Your task to perform on an android device: Open Youtube and go to the subscriptions tab Image 0: 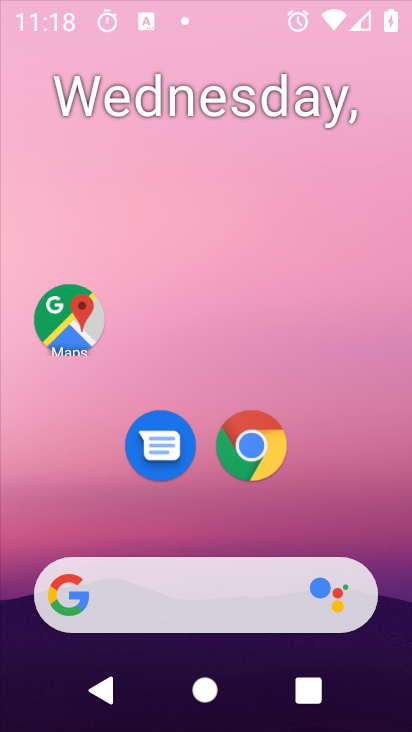
Step 0: click (383, 22)
Your task to perform on an android device: Open Youtube and go to the subscriptions tab Image 1: 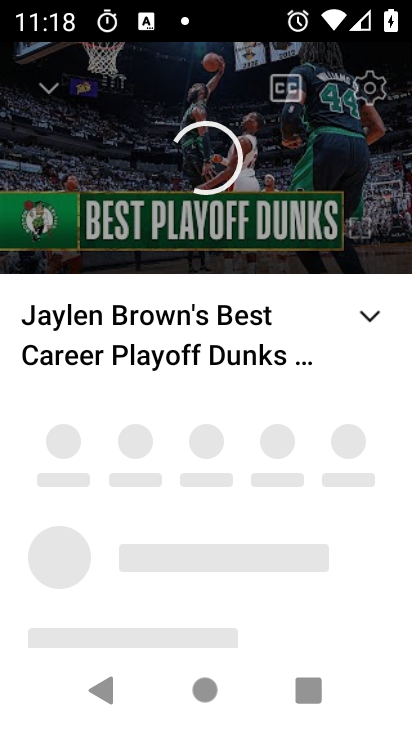
Step 1: press home button
Your task to perform on an android device: Open Youtube and go to the subscriptions tab Image 2: 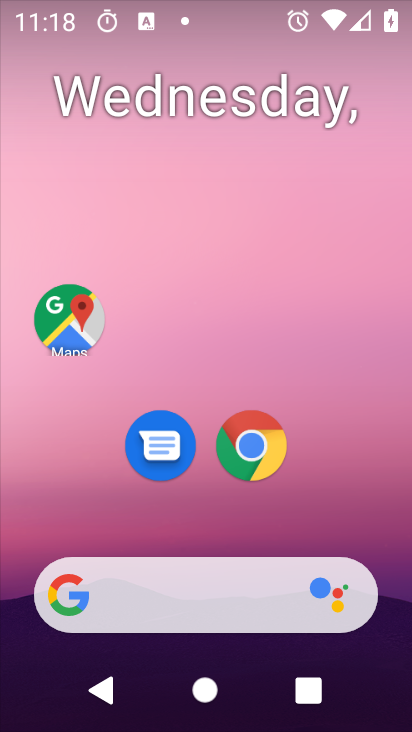
Step 2: drag from (384, 520) to (403, 45)
Your task to perform on an android device: Open Youtube and go to the subscriptions tab Image 3: 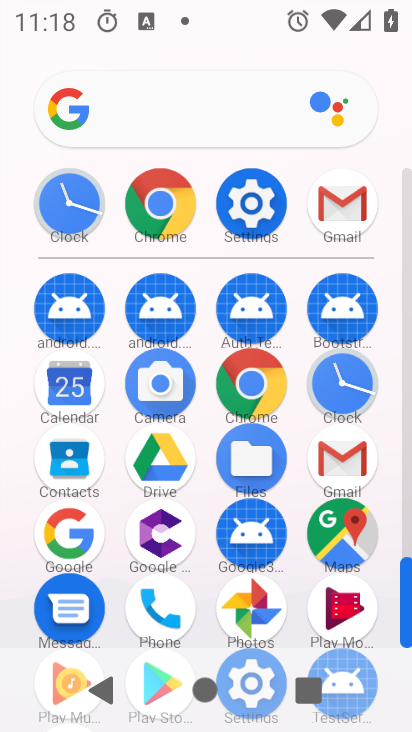
Step 3: click (161, 217)
Your task to perform on an android device: Open Youtube and go to the subscriptions tab Image 4: 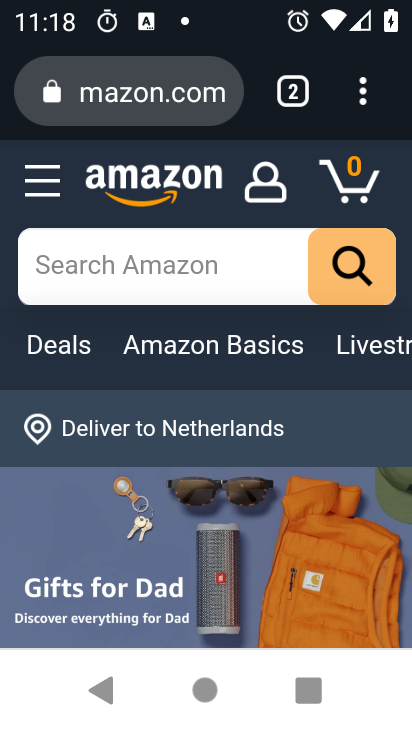
Step 4: press home button
Your task to perform on an android device: Open Youtube and go to the subscriptions tab Image 5: 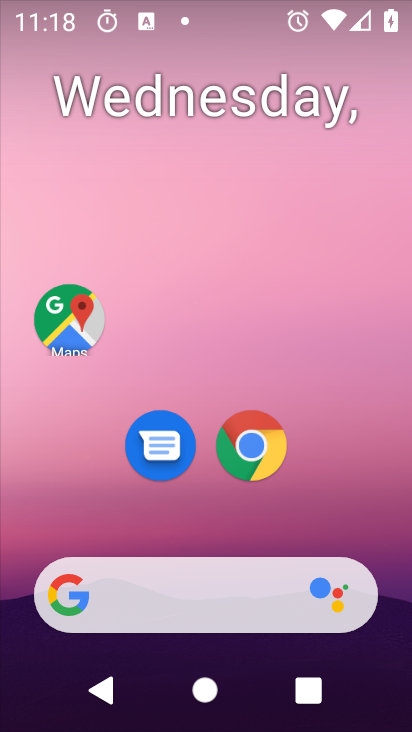
Step 5: click (389, 455)
Your task to perform on an android device: Open Youtube and go to the subscriptions tab Image 6: 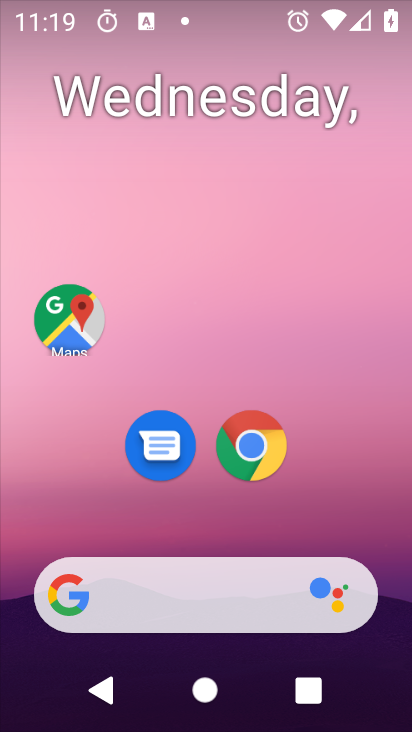
Step 6: drag from (367, 532) to (388, 5)
Your task to perform on an android device: Open Youtube and go to the subscriptions tab Image 7: 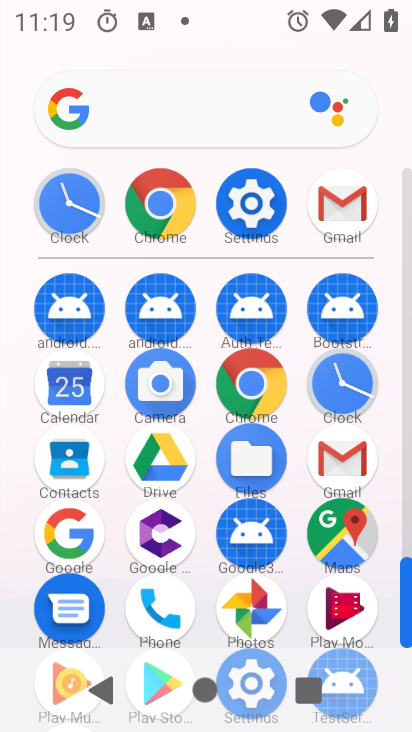
Step 7: drag from (401, 533) to (393, 177)
Your task to perform on an android device: Open Youtube and go to the subscriptions tab Image 8: 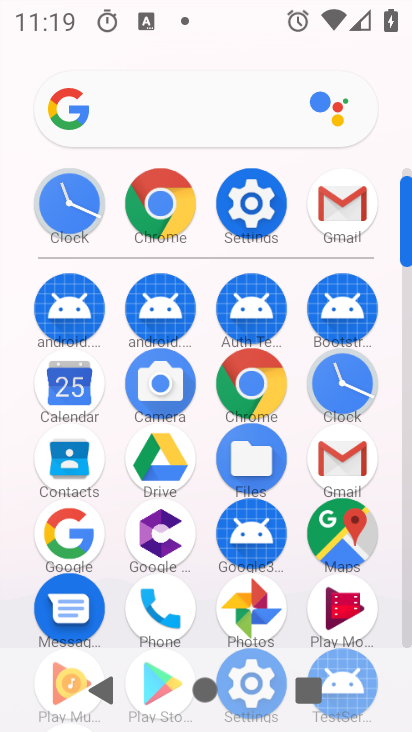
Step 8: drag from (383, 608) to (390, 268)
Your task to perform on an android device: Open Youtube and go to the subscriptions tab Image 9: 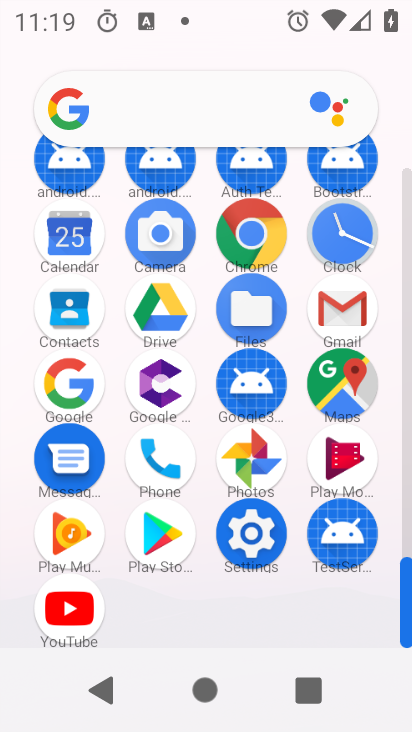
Step 9: click (80, 609)
Your task to perform on an android device: Open Youtube and go to the subscriptions tab Image 10: 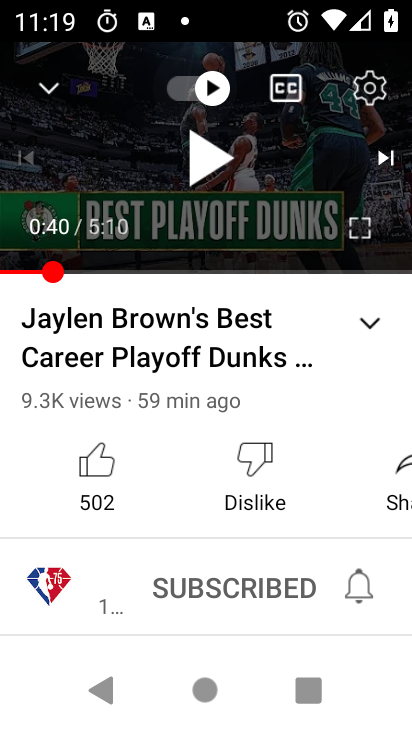
Step 10: press back button
Your task to perform on an android device: Open Youtube and go to the subscriptions tab Image 11: 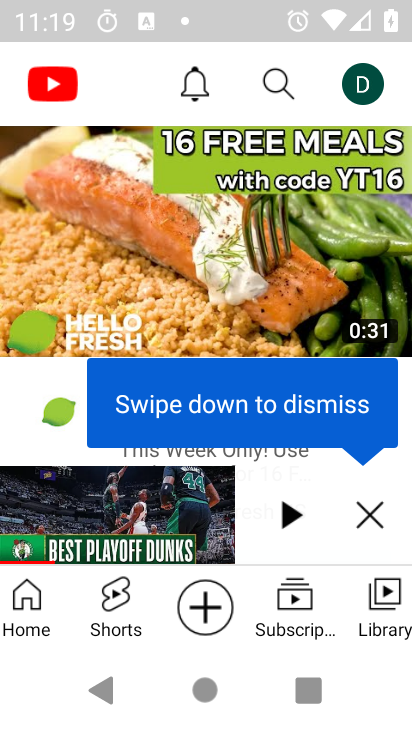
Step 11: click (284, 613)
Your task to perform on an android device: Open Youtube and go to the subscriptions tab Image 12: 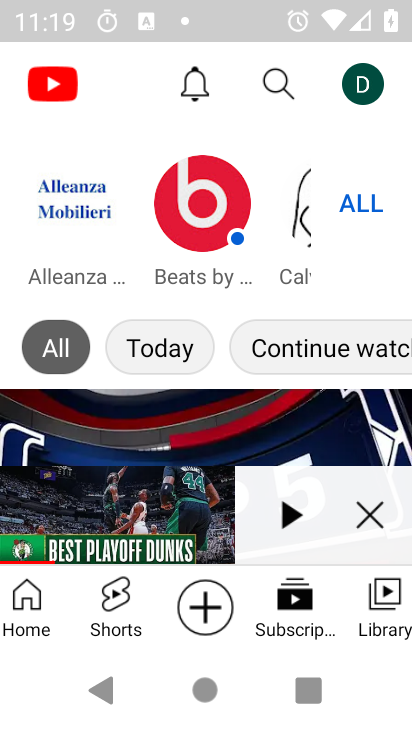
Step 12: task complete